Your task to perform on an android device: toggle improve location accuracy Image 0: 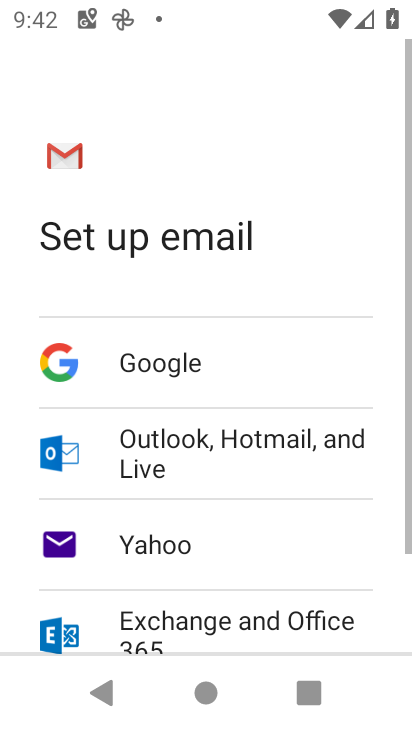
Step 0: press home button
Your task to perform on an android device: toggle improve location accuracy Image 1: 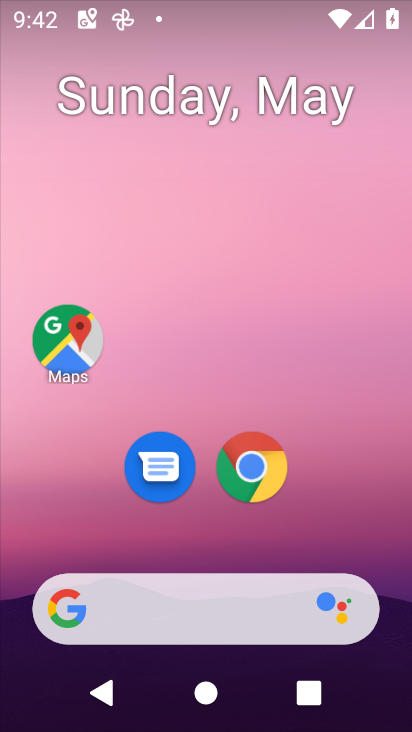
Step 1: drag from (369, 552) to (308, 70)
Your task to perform on an android device: toggle improve location accuracy Image 2: 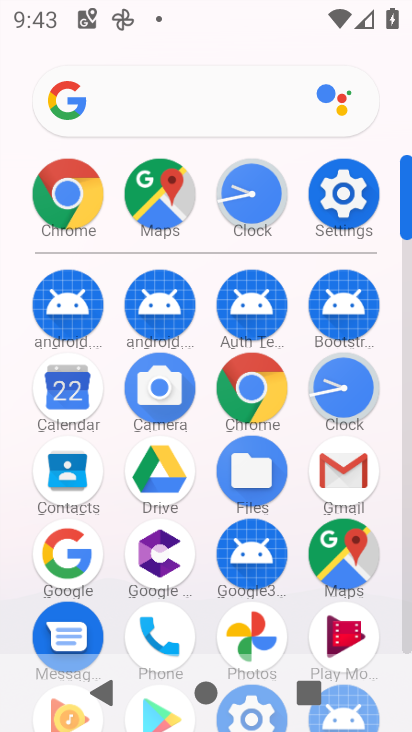
Step 2: drag from (288, 565) to (295, 328)
Your task to perform on an android device: toggle improve location accuracy Image 3: 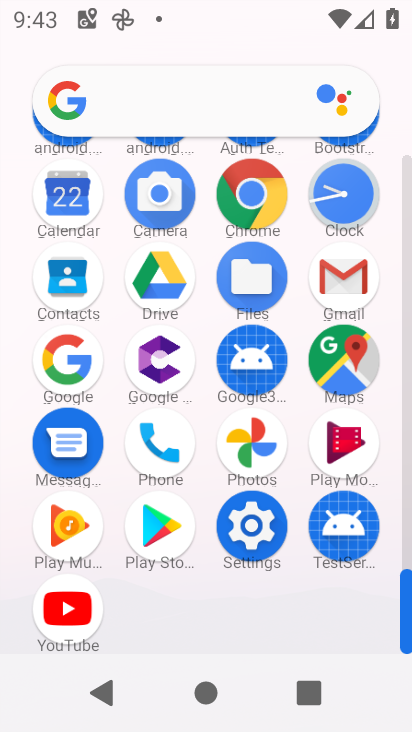
Step 3: click (266, 526)
Your task to perform on an android device: toggle improve location accuracy Image 4: 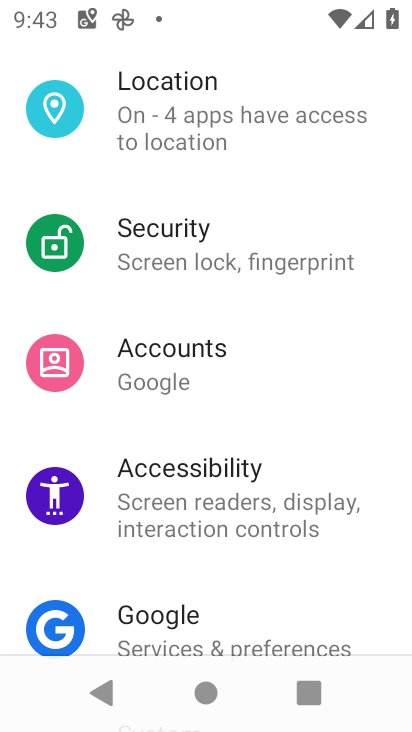
Step 4: click (184, 141)
Your task to perform on an android device: toggle improve location accuracy Image 5: 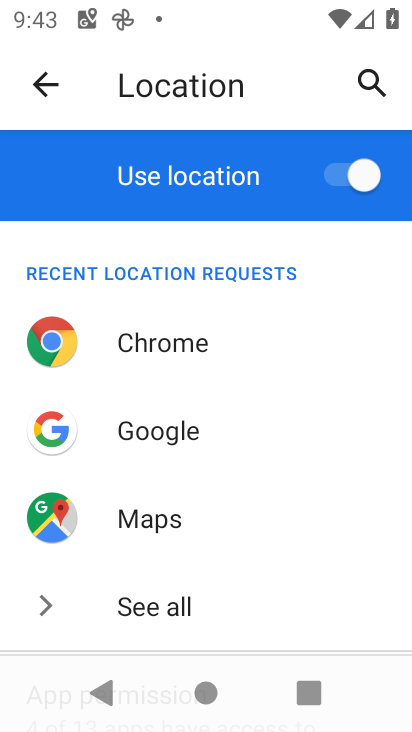
Step 5: drag from (279, 565) to (279, 240)
Your task to perform on an android device: toggle improve location accuracy Image 6: 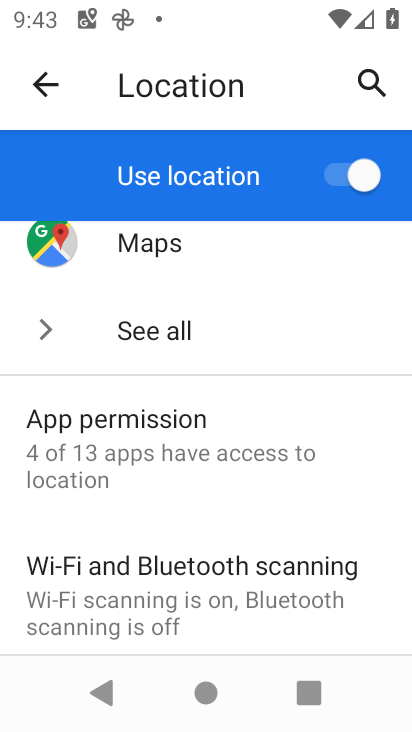
Step 6: drag from (219, 569) to (263, 252)
Your task to perform on an android device: toggle improve location accuracy Image 7: 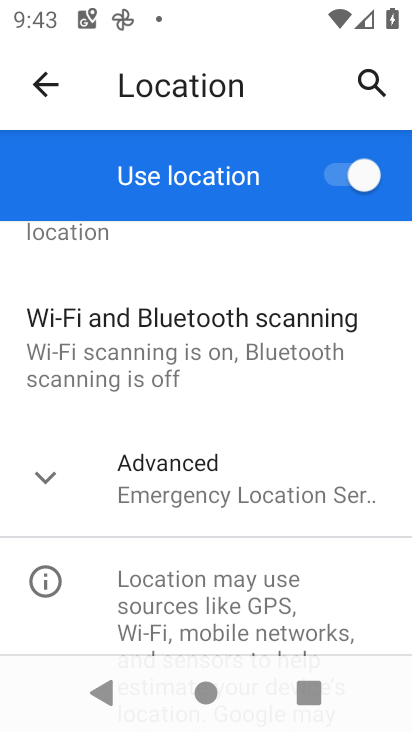
Step 7: click (214, 467)
Your task to perform on an android device: toggle improve location accuracy Image 8: 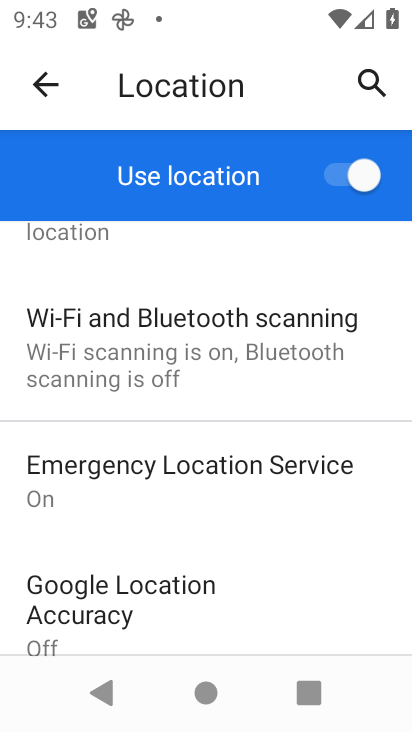
Step 8: click (155, 598)
Your task to perform on an android device: toggle improve location accuracy Image 9: 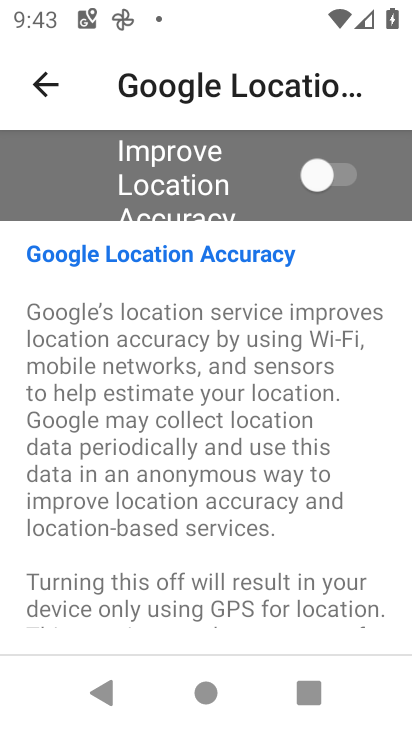
Step 9: click (349, 177)
Your task to perform on an android device: toggle improve location accuracy Image 10: 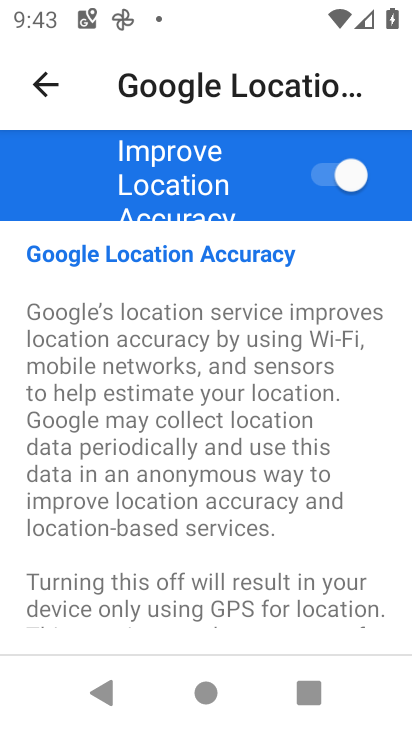
Step 10: task complete